Your task to perform on an android device: Open Yahoo.com Image 0: 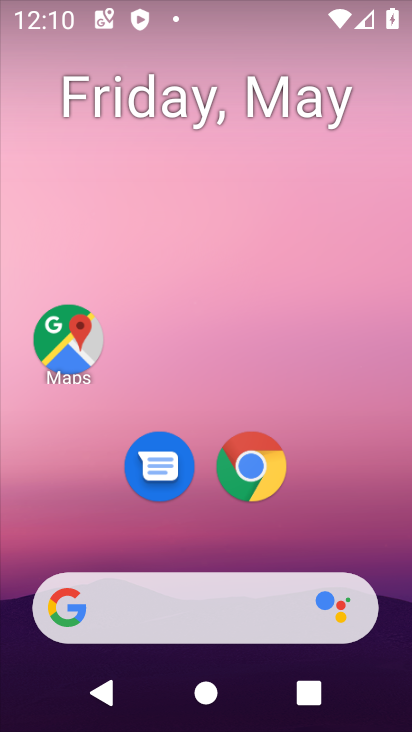
Step 0: drag from (394, 617) to (290, 57)
Your task to perform on an android device: Open Yahoo.com Image 1: 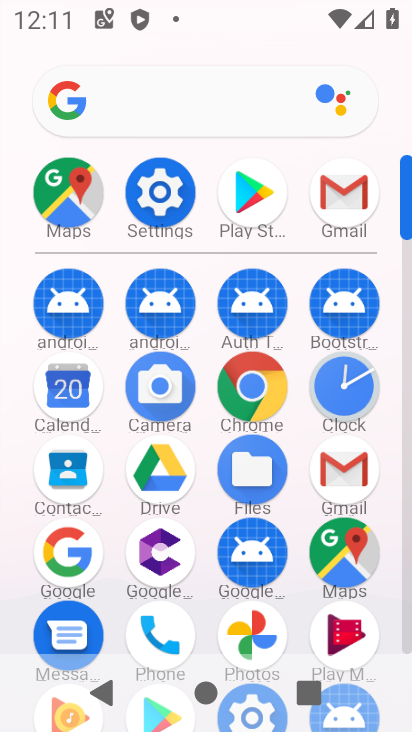
Step 1: click (252, 377)
Your task to perform on an android device: Open Yahoo.com Image 2: 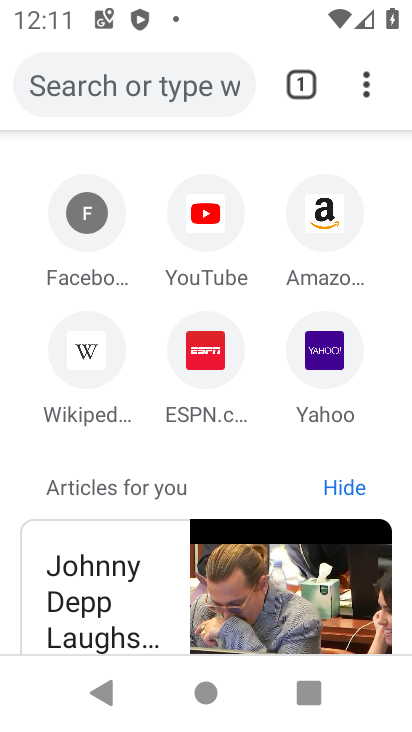
Step 2: click (319, 348)
Your task to perform on an android device: Open Yahoo.com Image 3: 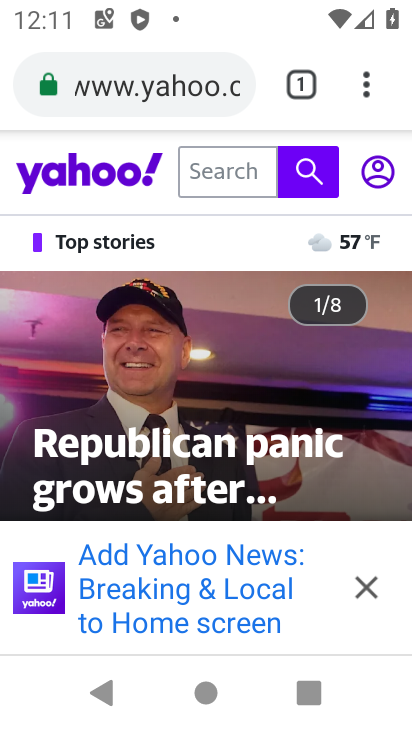
Step 3: task complete